Your task to perform on an android device: snooze an email in the gmail app Image 0: 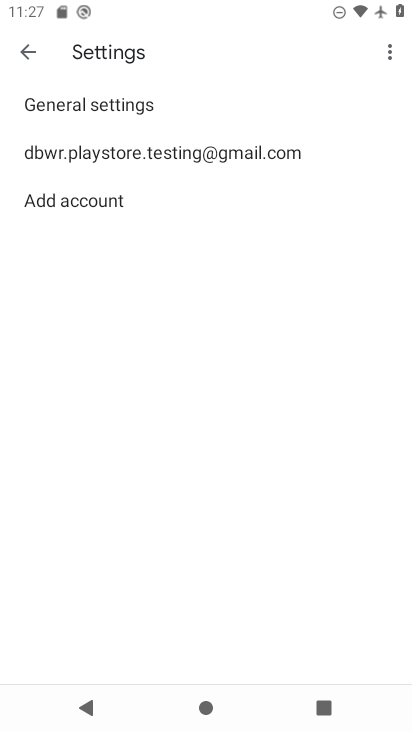
Step 0: press home button
Your task to perform on an android device: snooze an email in the gmail app Image 1: 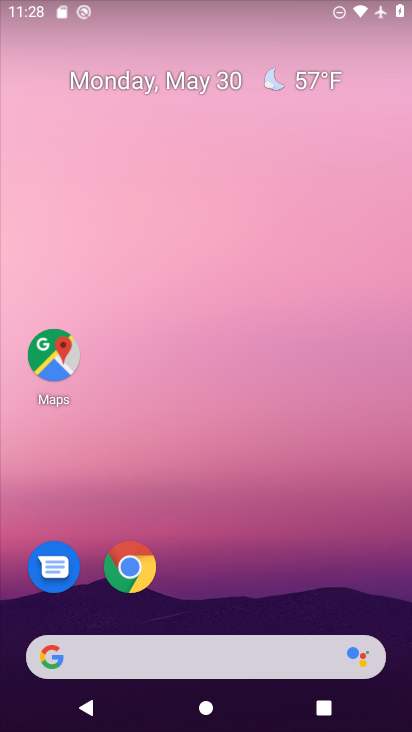
Step 1: drag from (222, 611) to (220, 240)
Your task to perform on an android device: snooze an email in the gmail app Image 2: 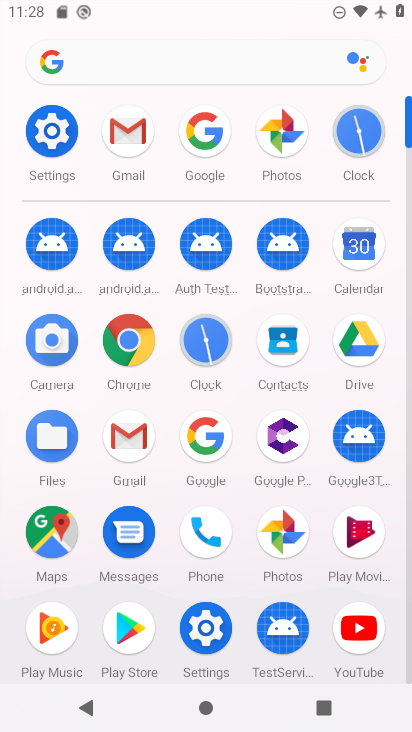
Step 2: click (131, 143)
Your task to perform on an android device: snooze an email in the gmail app Image 3: 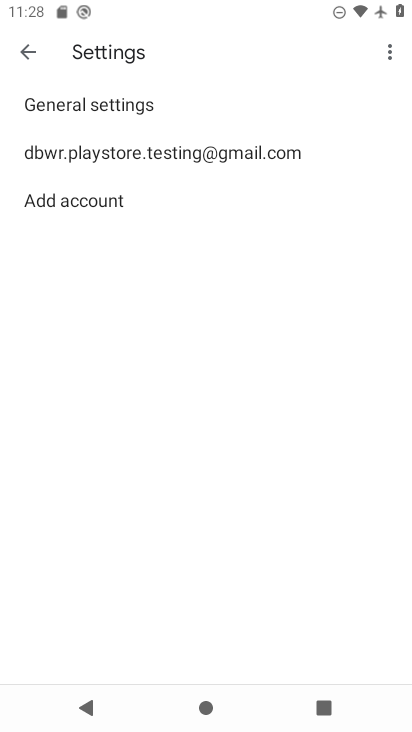
Step 3: click (32, 51)
Your task to perform on an android device: snooze an email in the gmail app Image 4: 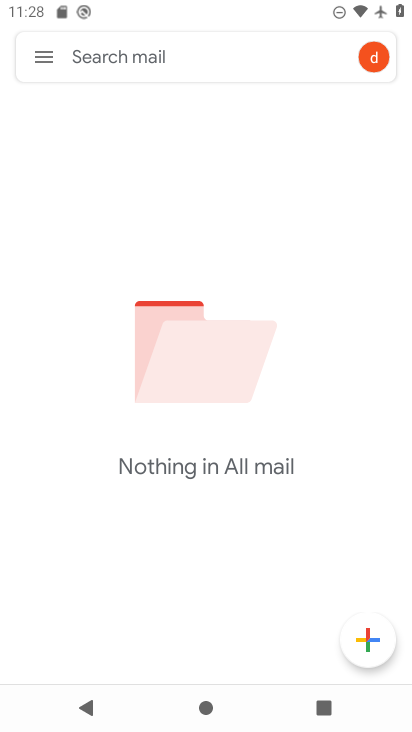
Step 4: click (32, 51)
Your task to perform on an android device: snooze an email in the gmail app Image 5: 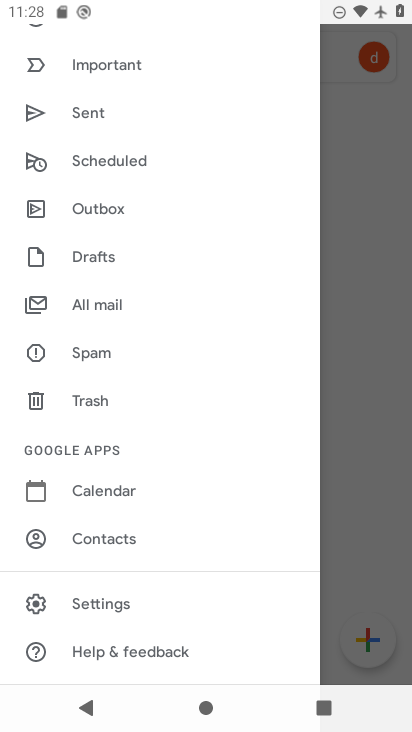
Step 5: click (104, 299)
Your task to perform on an android device: snooze an email in the gmail app Image 6: 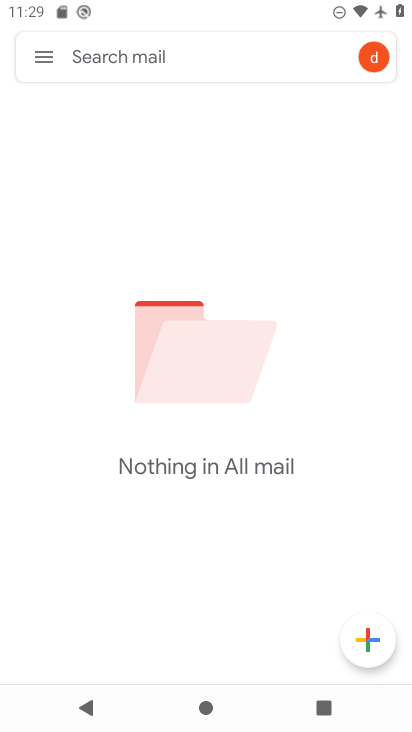
Step 6: click (38, 62)
Your task to perform on an android device: snooze an email in the gmail app Image 7: 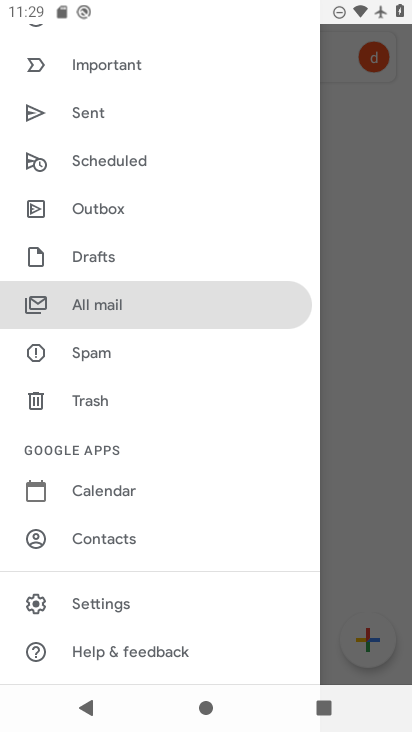
Step 7: click (400, 313)
Your task to perform on an android device: snooze an email in the gmail app Image 8: 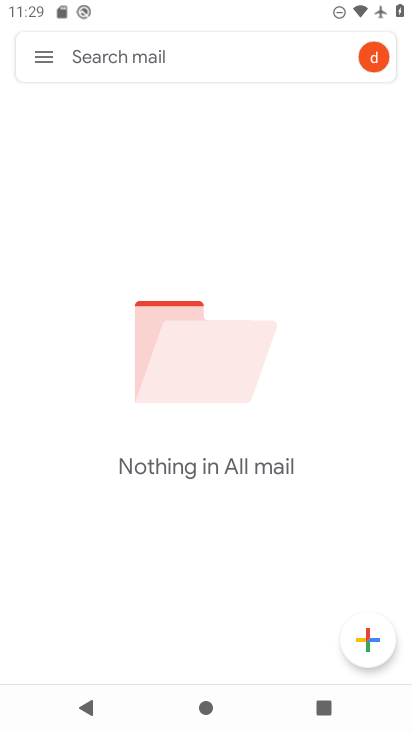
Step 8: task complete